Your task to perform on an android device: Find coffee shops on Maps Image 0: 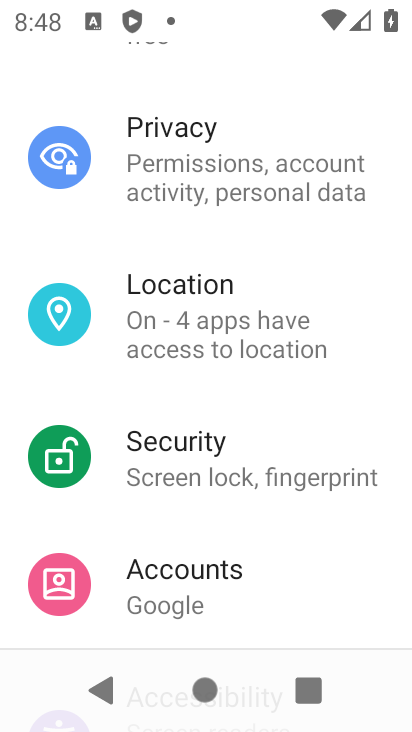
Step 0: click (273, 446)
Your task to perform on an android device: Find coffee shops on Maps Image 1: 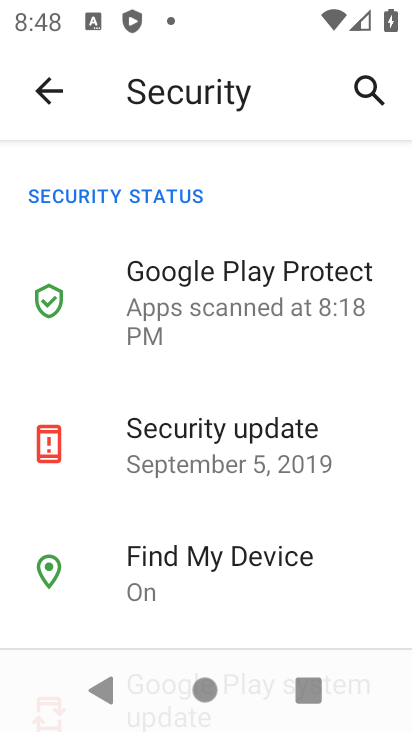
Step 1: press home button
Your task to perform on an android device: Find coffee shops on Maps Image 2: 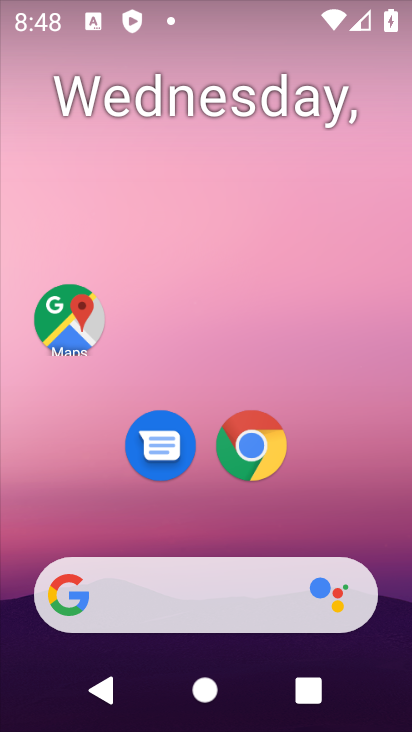
Step 2: drag from (351, 420) to (228, 0)
Your task to perform on an android device: Find coffee shops on Maps Image 3: 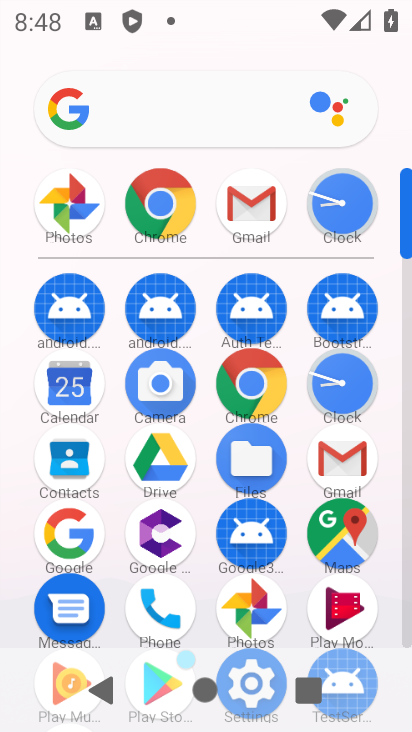
Step 3: click (332, 536)
Your task to perform on an android device: Find coffee shops on Maps Image 4: 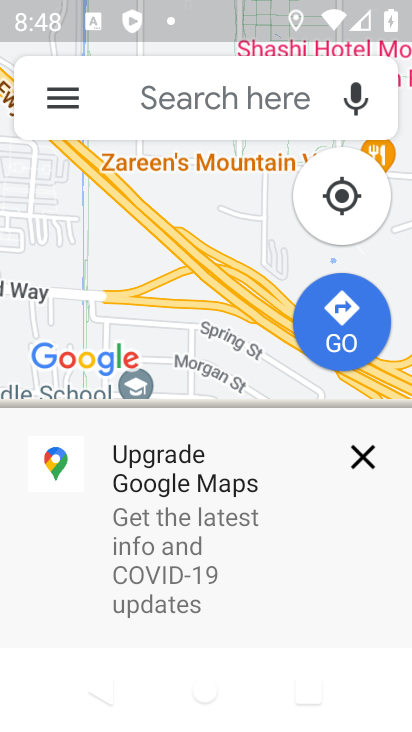
Step 4: click (179, 104)
Your task to perform on an android device: Find coffee shops on Maps Image 5: 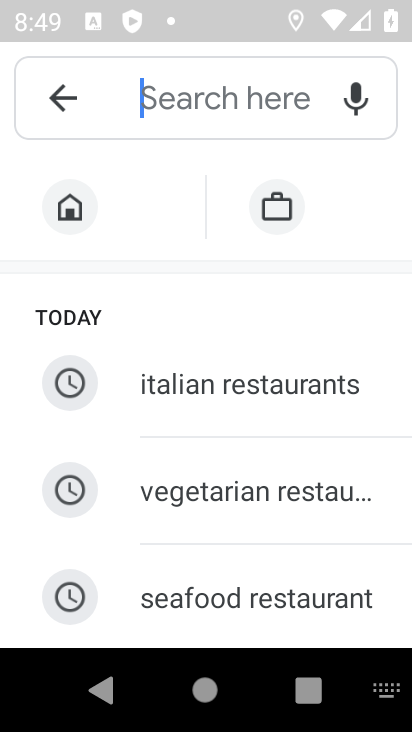
Step 5: drag from (226, 591) to (246, 285)
Your task to perform on an android device: Find coffee shops on Maps Image 6: 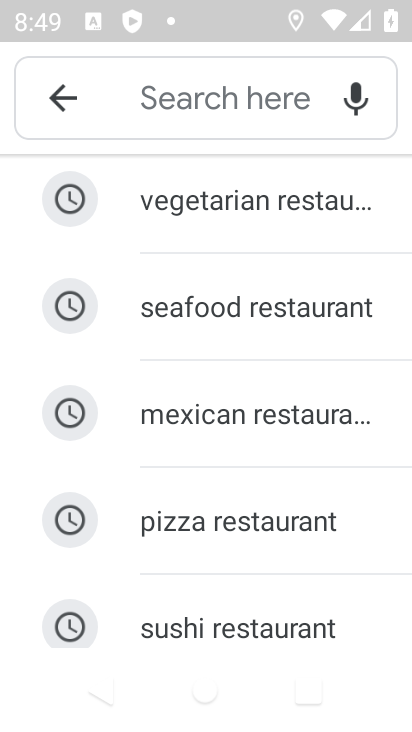
Step 6: drag from (257, 597) to (199, 185)
Your task to perform on an android device: Find coffee shops on Maps Image 7: 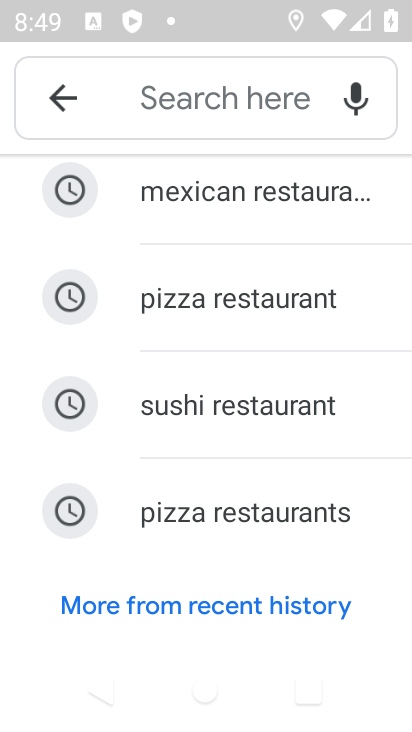
Step 7: drag from (211, 292) to (236, 651)
Your task to perform on an android device: Find coffee shops on Maps Image 8: 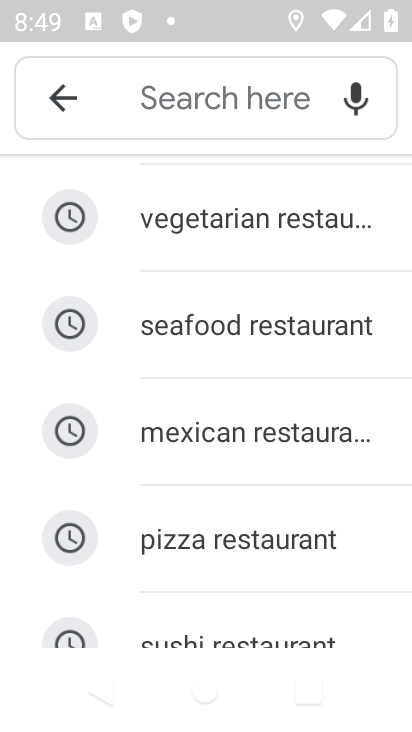
Step 8: drag from (204, 265) to (242, 649)
Your task to perform on an android device: Find coffee shops on Maps Image 9: 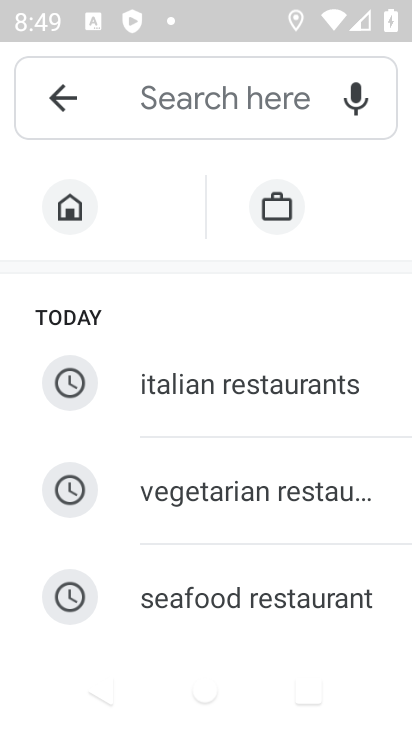
Step 9: drag from (224, 585) to (136, 231)
Your task to perform on an android device: Find coffee shops on Maps Image 10: 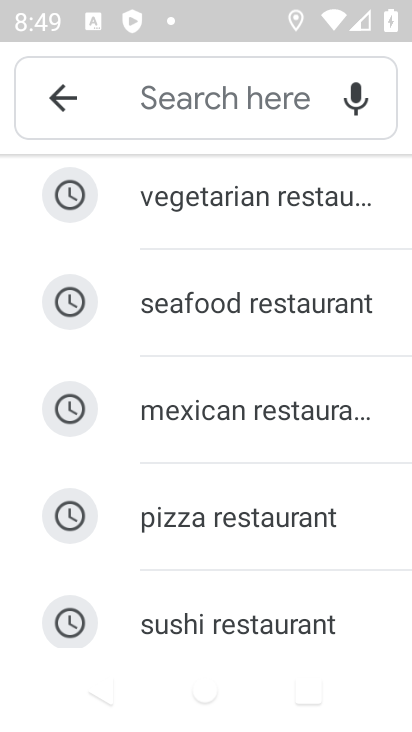
Step 10: drag from (160, 511) to (160, 166)
Your task to perform on an android device: Find coffee shops on Maps Image 11: 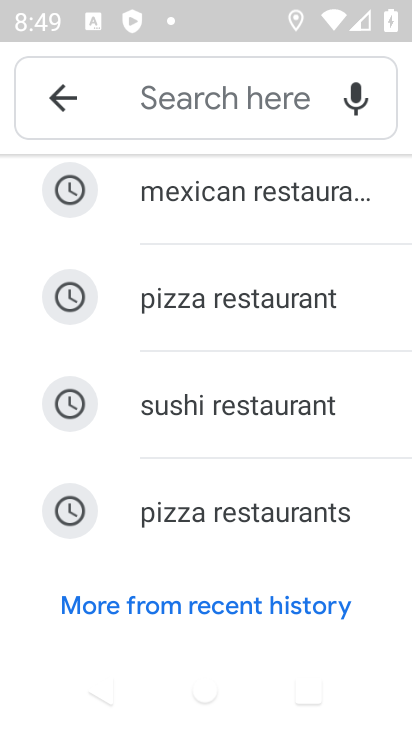
Step 11: click (216, 591)
Your task to perform on an android device: Find coffee shops on Maps Image 12: 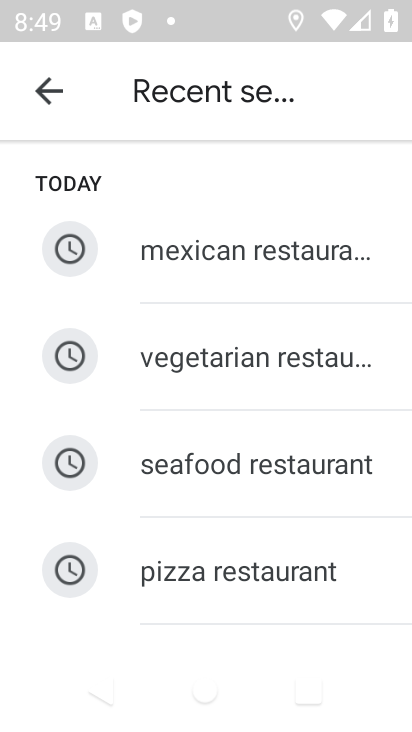
Step 12: drag from (210, 578) to (203, 172)
Your task to perform on an android device: Find coffee shops on Maps Image 13: 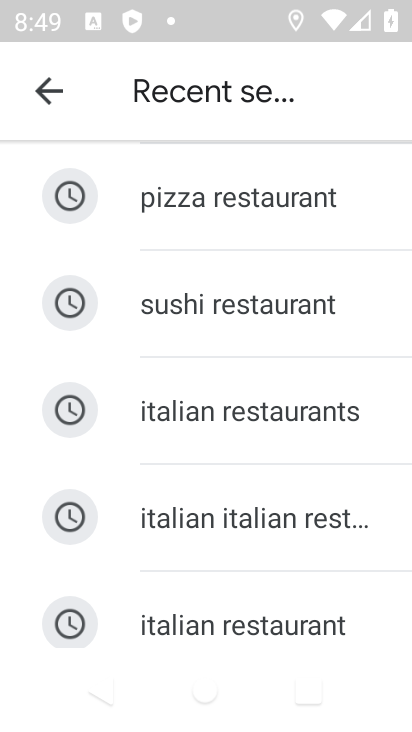
Step 13: drag from (223, 533) to (202, 93)
Your task to perform on an android device: Find coffee shops on Maps Image 14: 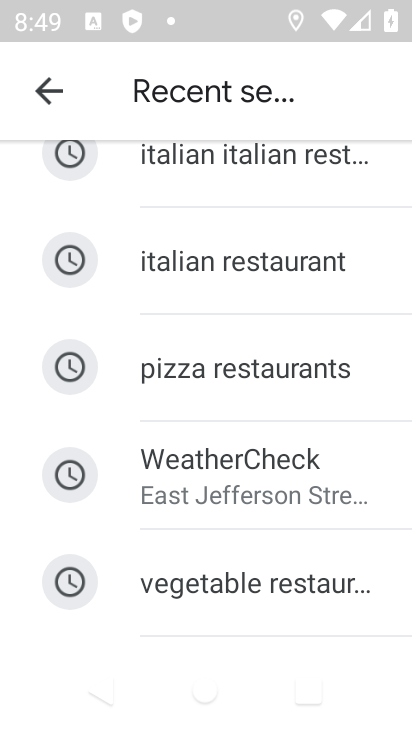
Step 14: drag from (237, 509) to (243, 160)
Your task to perform on an android device: Find coffee shops on Maps Image 15: 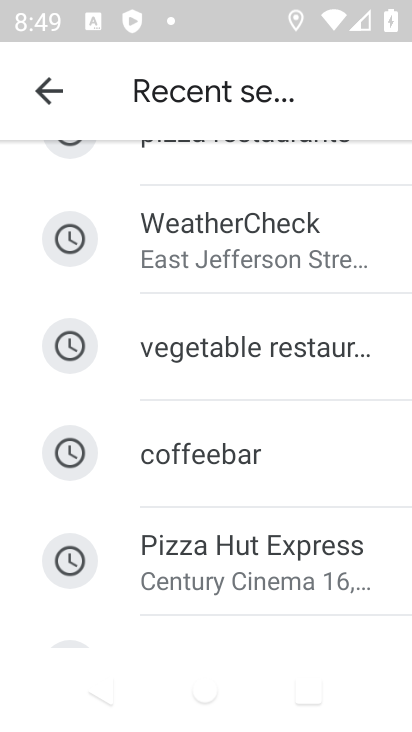
Step 15: drag from (244, 525) to (228, 144)
Your task to perform on an android device: Find coffee shops on Maps Image 16: 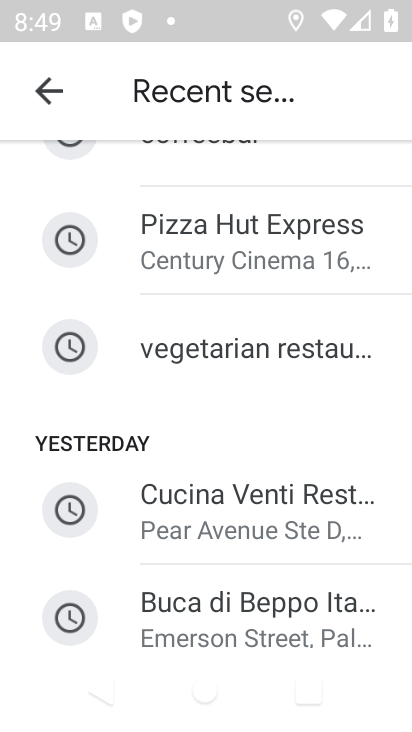
Step 16: drag from (228, 144) to (266, 572)
Your task to perform on an android device: Find coffee shops on Maps Image 17: 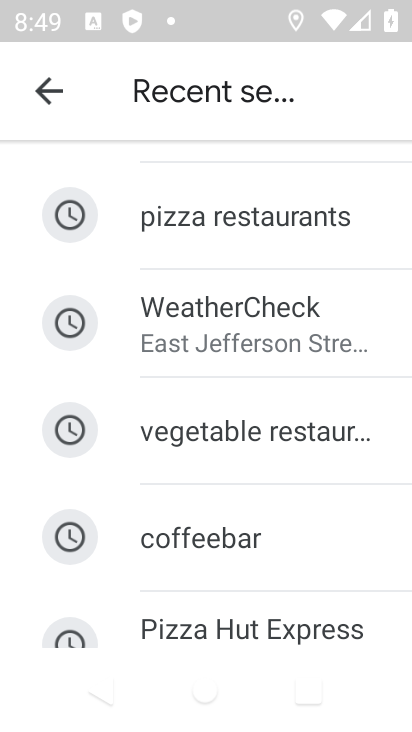
Step 17: drag from (318, 257) to (269, 687)
Your task to perform on an android device: Find coffee shops on Maps Image 18: 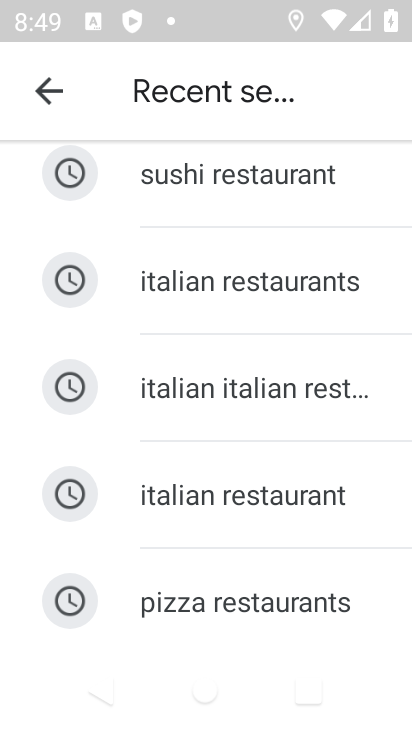
Step 18: drag from (233, 259) to (215, 725)
Your task to perform on an android device: Find coffee shops on Maps Image 19: 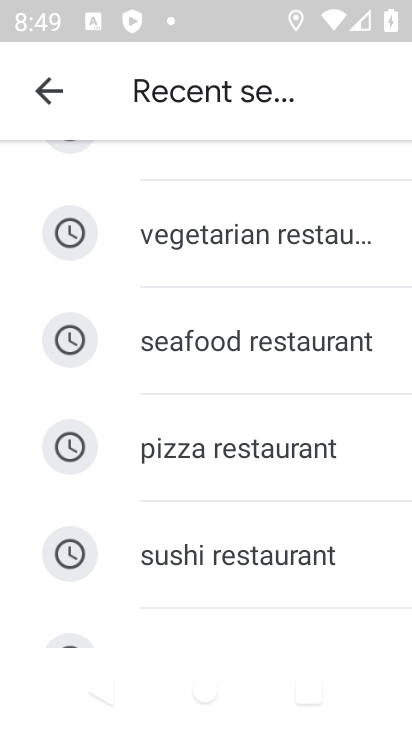
Step 19: drag from (163, 214) to (181, 655)
Your task to perform on an android device: Find coffee shops on Maps Image 20: 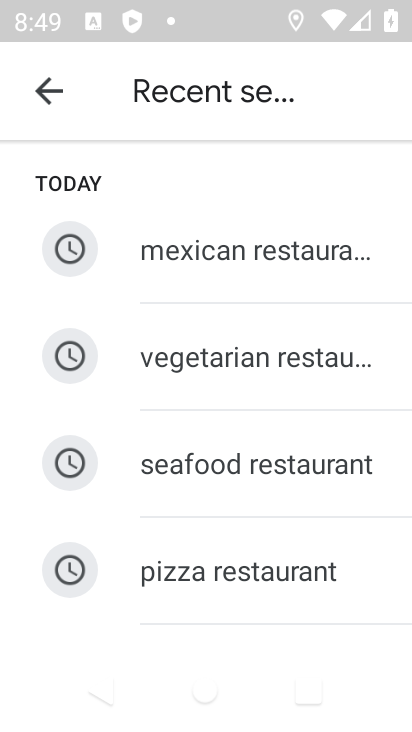
Step 20: drag from (143, 236) to (196, 664)
Your task to perform on an android device: Find coffee shops on Maps Image 21: 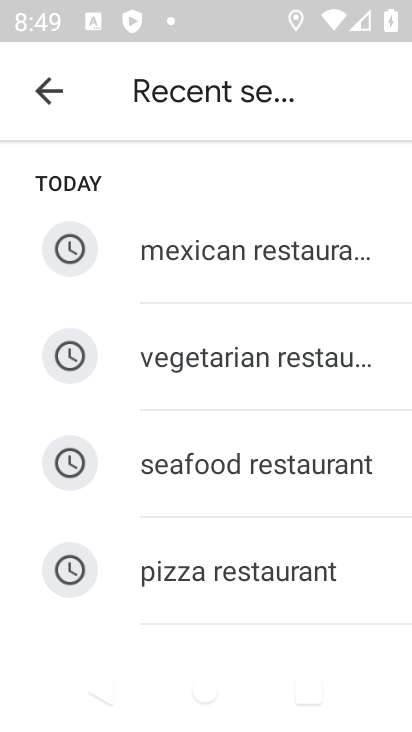
Step 21: drag from (270, 254) to (307, 713)
Your task to perform on an android device: Find coffee shops on Maps Image 22: 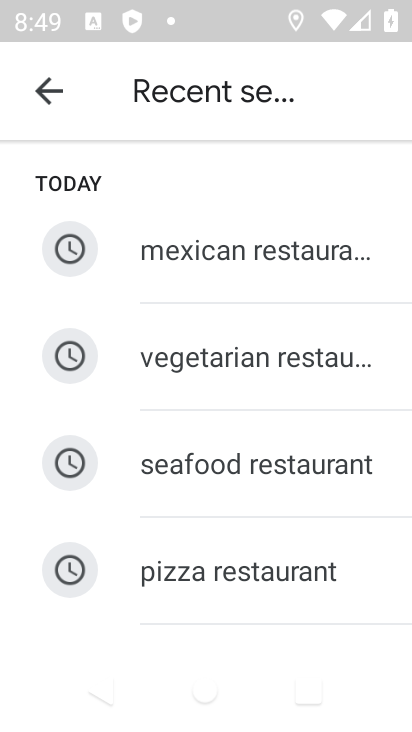
Step 22: drag from (221, 246) to (287, 666)
Your task to perform on an android device: Find coffee shops on Maps Image 23: 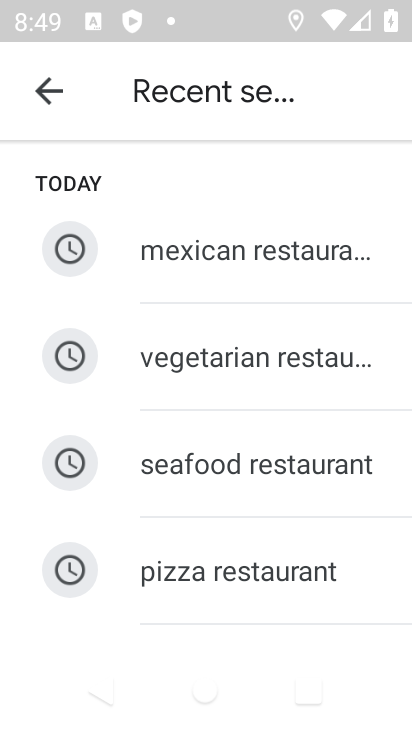
Step 23: drag from (132, 186) to (220, 631)
Your task to perform on an android device: Find coffee shops on Maps Image 24: 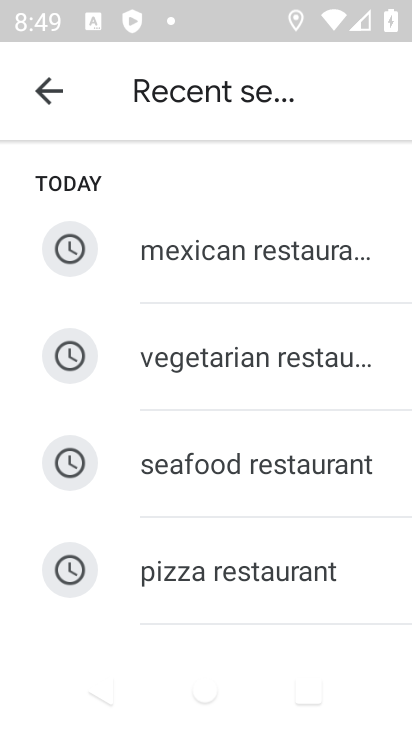
Step 24: click (65, 91)
Your task to perform on an android device: Find coffee shops on Maps Image 25: 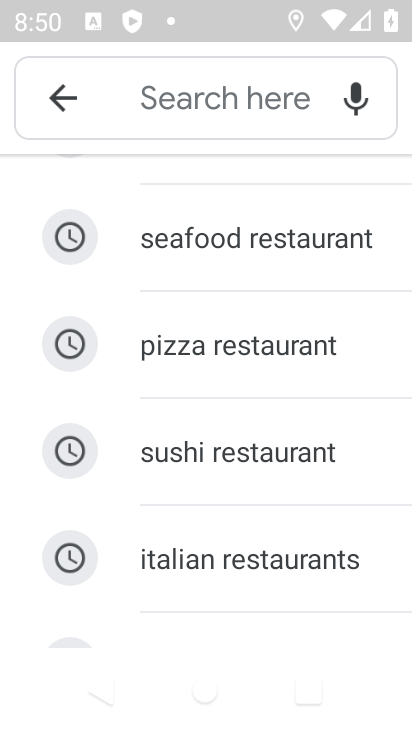
Step 25: click (172, 124)
Your task to perform on an android device: Find coffee shops on Maps Image 26: 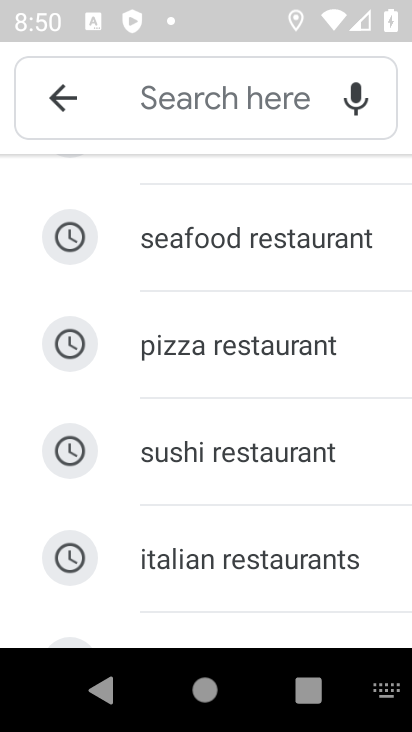
Step 26: type "coffee"
Your task to perform on an android device: Find coffee shops on Maps Image 27: 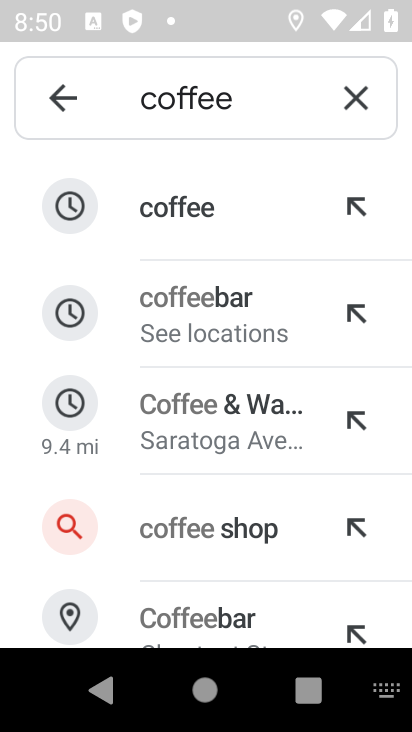
Step 27: click (176, 207)
Your task to perform on an android device: Find coffee shops on Maps Image 28: 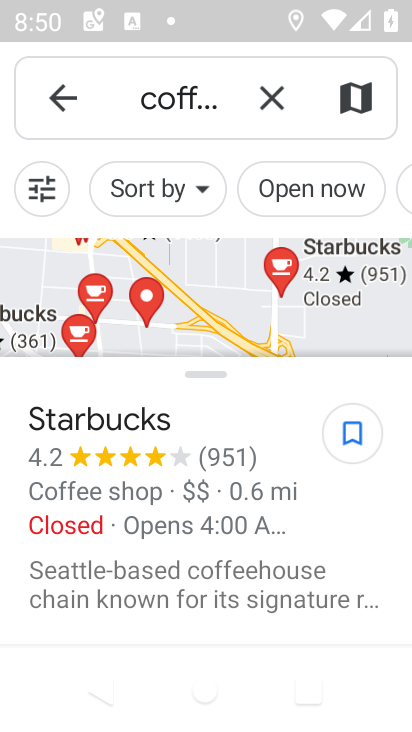
Step 28: task complete